Your task to perform on an android device: Open Amazon Image 0: 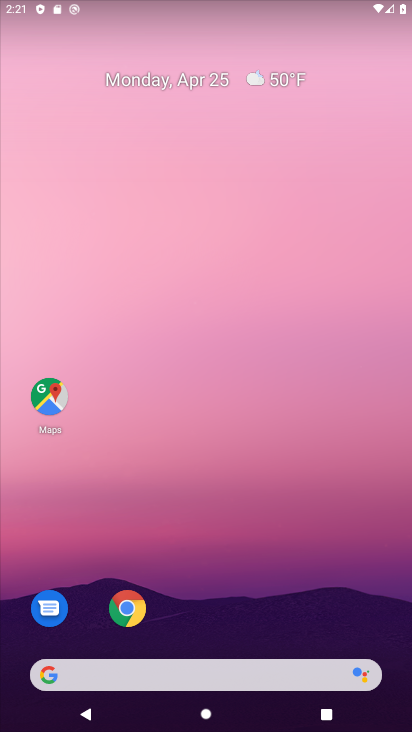
Step 0: click (115, 609)
Your task to perform on an android device: Open Amazon Image 1: 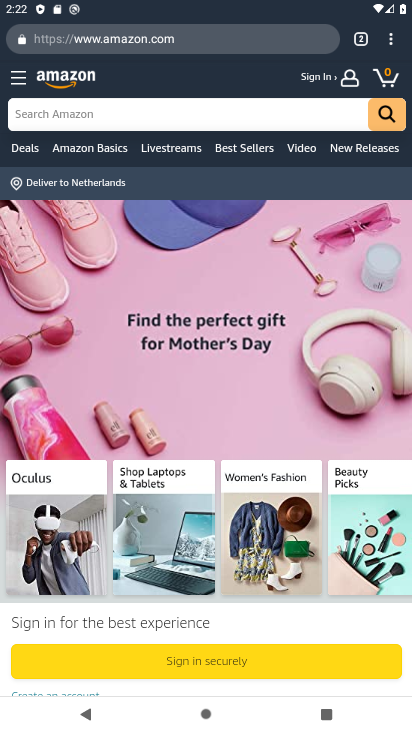
Step 1: task complete